Your task to perform on an android device: change your default location settings in chrome Image 0: 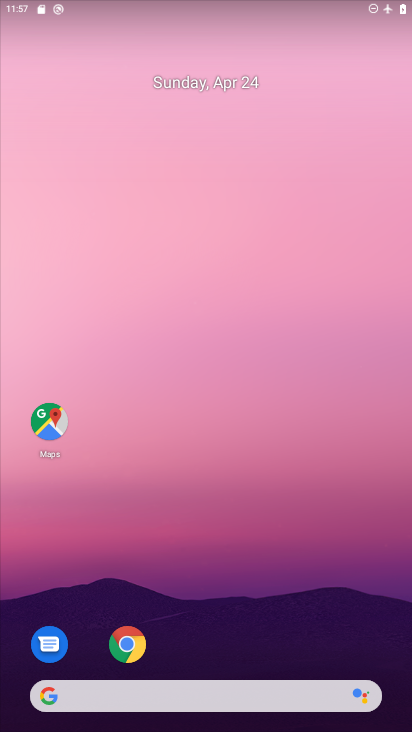
Step 0: click (204, 649)
Your task to perform on an android device: change your default location settings in chrome Image 1: 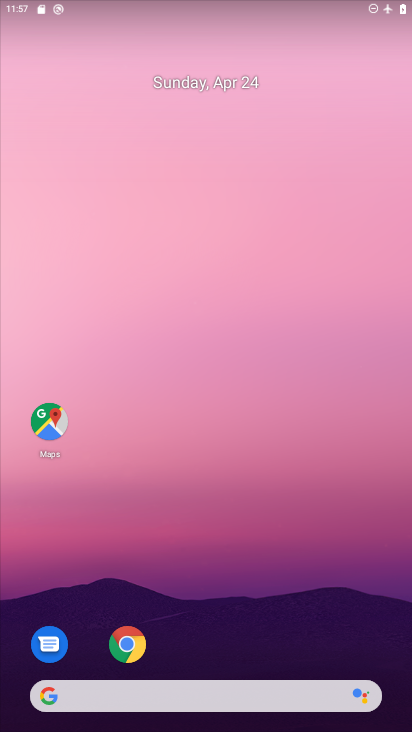
Step 1: click (134, 642)
Your task to perform on an android device: change your default location settings in chrome Image 2: 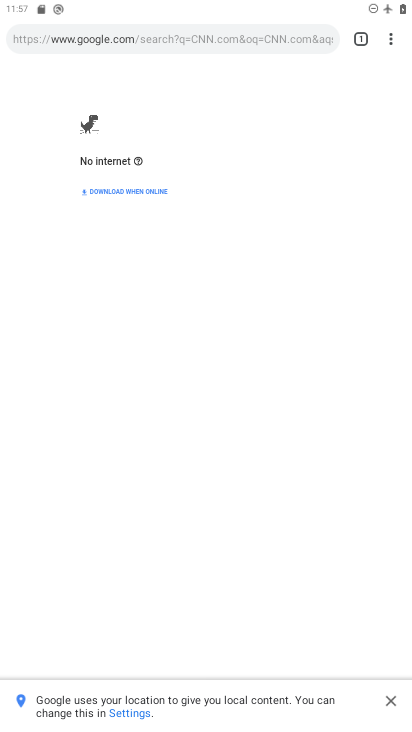
Step 2: click (388, 46)
Your task to perform on an android device: change your default location settings in chrome Image 3: 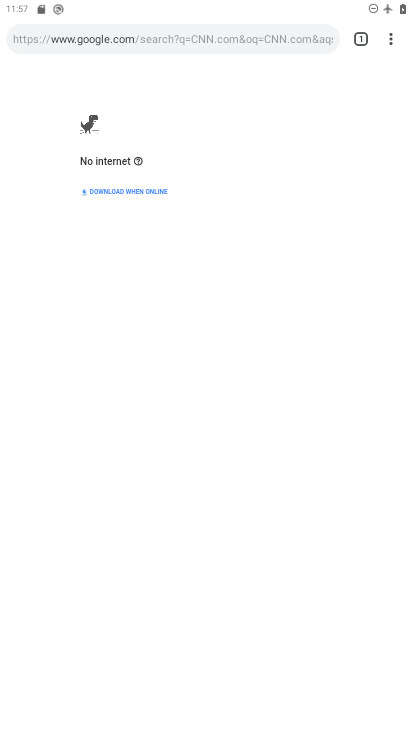
Step 3: click (393, 33)
Your task to perform on an android device: change your default location settings in chrome Image 4: 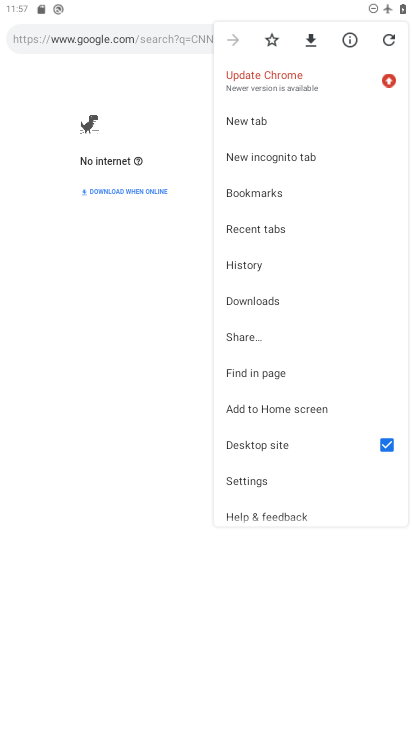
Step 4: click (259, 488)
Your task to perform on an android device: change your default location settings in chrome Image 5: 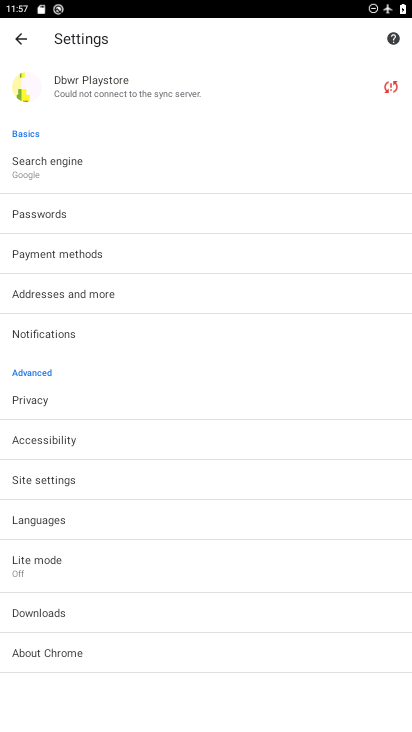
Step 5: click (72, 482)
Your task to perform on an android device: change your default location settings in chrome Image 6: 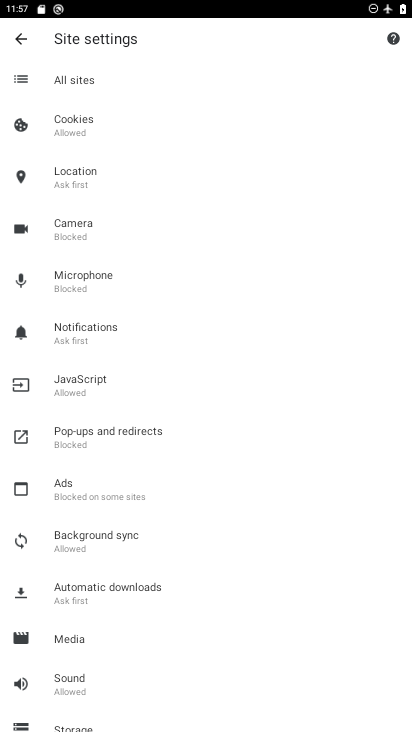
Step 6: click (73, 181)
Your task to perform on an android device: change your default location settings in chrome Image 7: 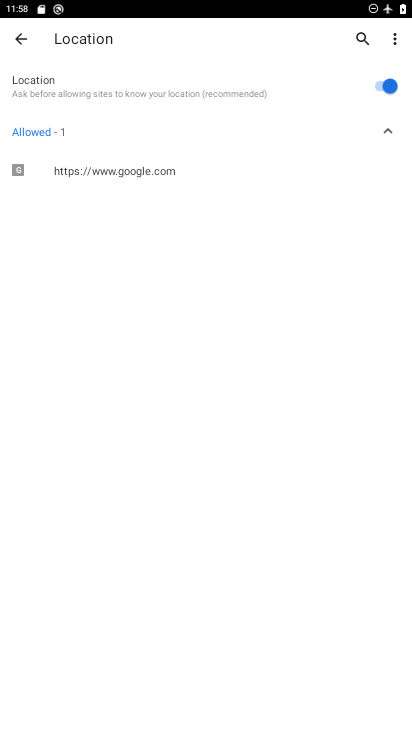
Step 7: click (375, 85)
Your task to perform on an android device: change your default location settings in chrome Image 8: 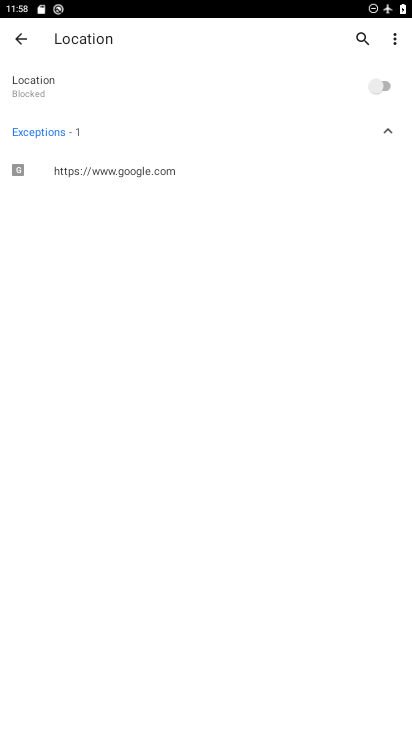
Step 8: task complete